Your task to perform on an android device: Open network settings Image 0: 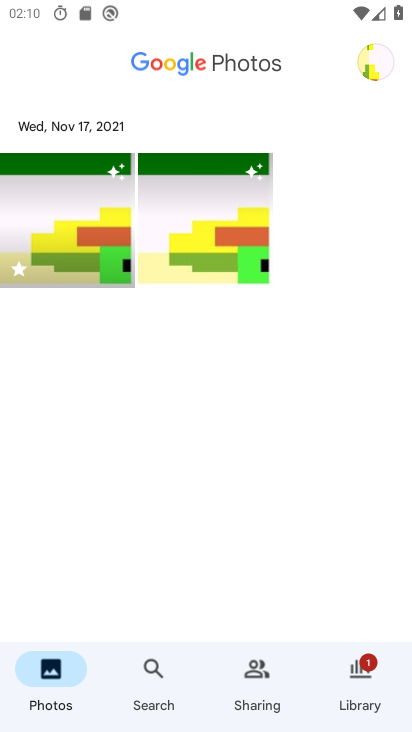
Step 0: press home button
Your task to perform on an android device: Open network settings Image 1: 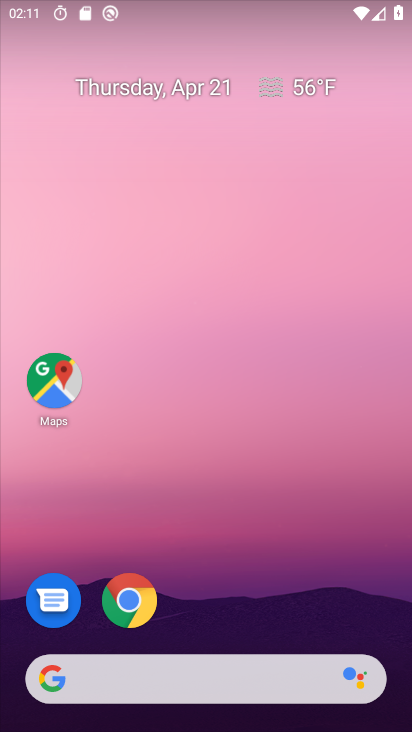
Step 1: drag from (263, 583) to (313, 103)
Your task to perform on an android device: Open network settings Image 2: 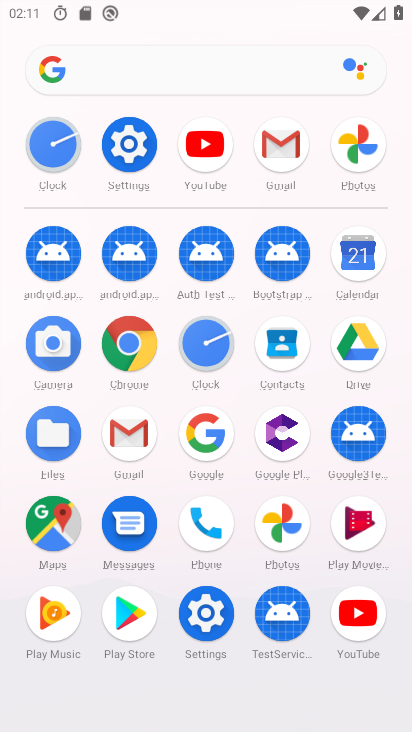
Step 2: click (127, 133)
Your task to perform on an android device: Open network settings Image 3: 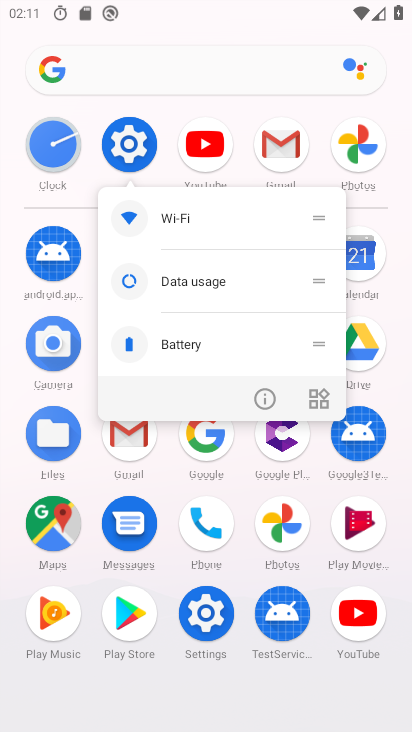
Step 3: click (127, 136)
Your task to perform on an android device: Open network settings Image 4: 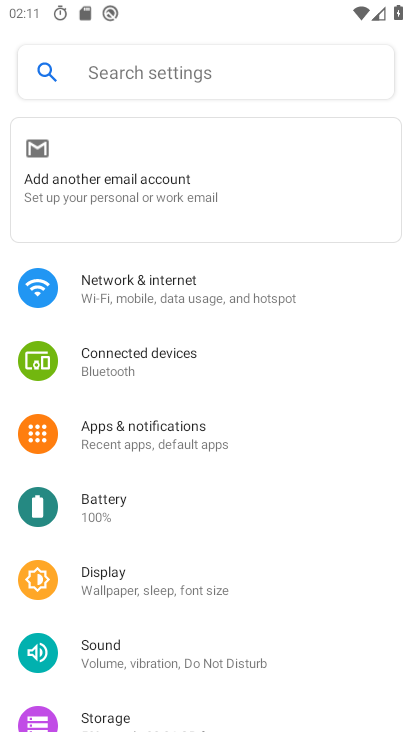
Step 4: click (168, 277)
Your task to perform on an android device: Open network settings Image 5: 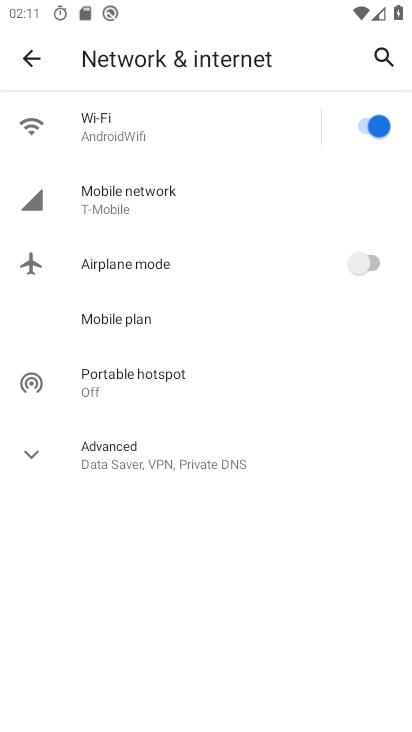
Step 5: task complete